Your task to perform on an android device: turn off location history Image 0: 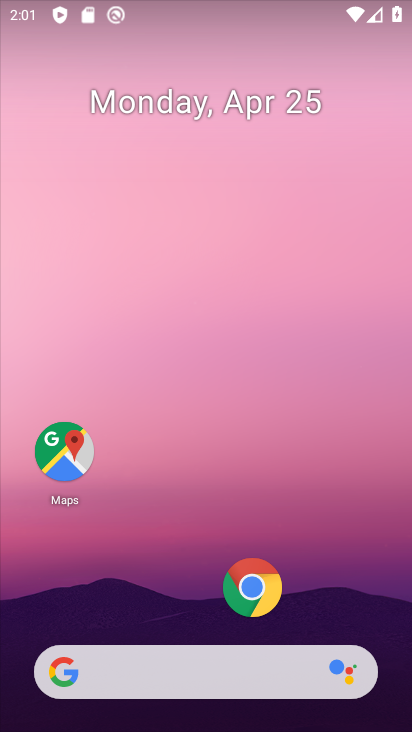
Step 0: click (239, 92)
Your task to perform on an android device: turn off location history Image 1: 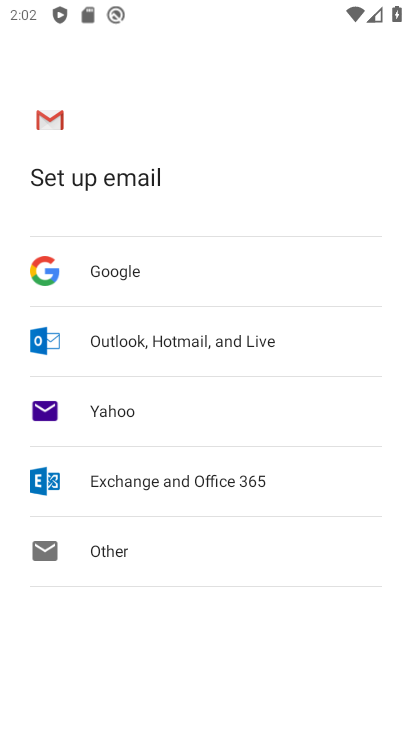
Step 1: press home button
Your task to perform on an android device: turn off location history Image 2: 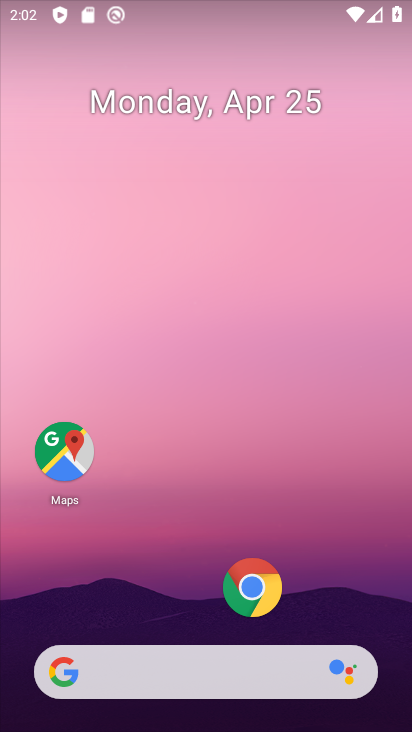
Step 2: drag from (186, 622) to (219, 17)
Your task to perform on an android device: turn off location history Image 3: 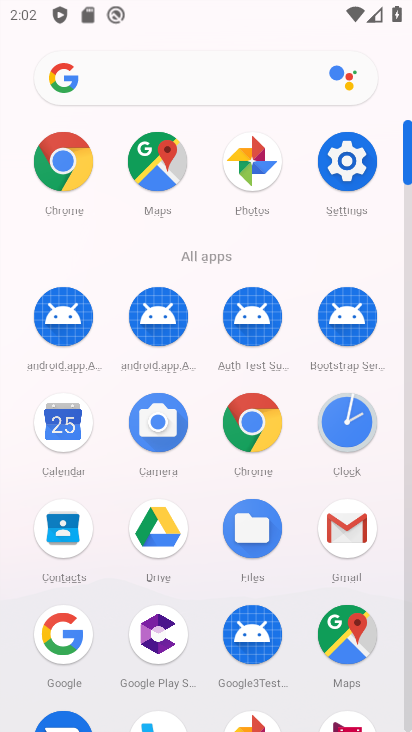
Step 3: click (342, 158)
Your task to perform on an android device: turn off location history Image 4: 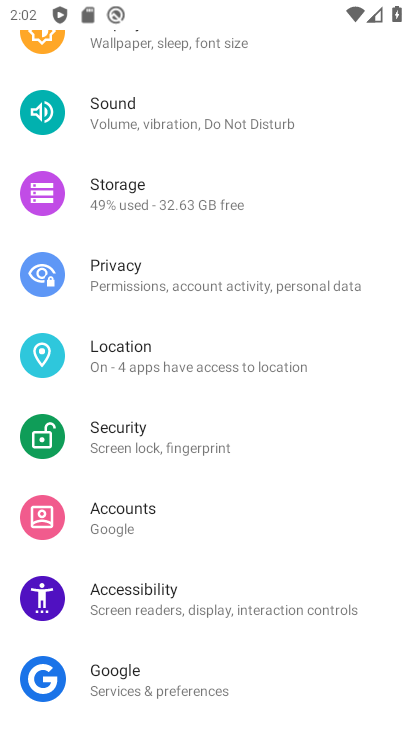
Step 4: click (148, 349)
Your task to perform on an android device: turn off location history Image 5: 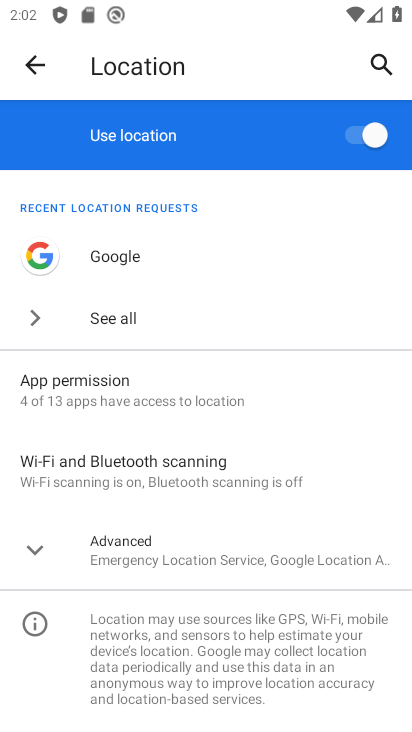
Step 5: click (34, 551)
Your task to perform on an android device: turn off location history Image 6: 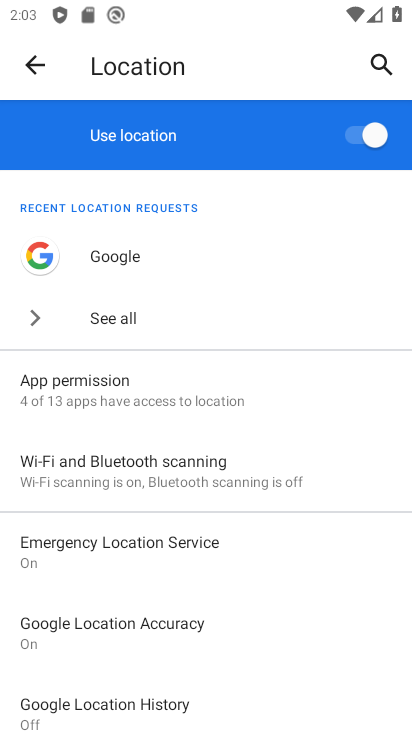
Step 6: click (174, 697)
Your task to perform on an android device: turn off location history Image 7: 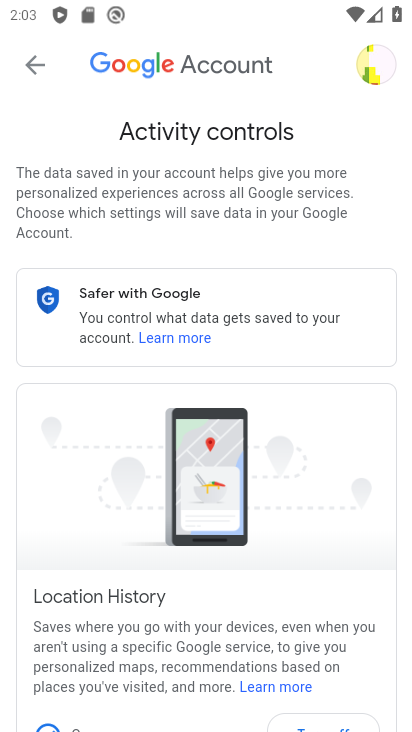
Step 7: drag from (205, 616) to (233, 96)
Your task to perform on an android device: turn off location history Image 8: 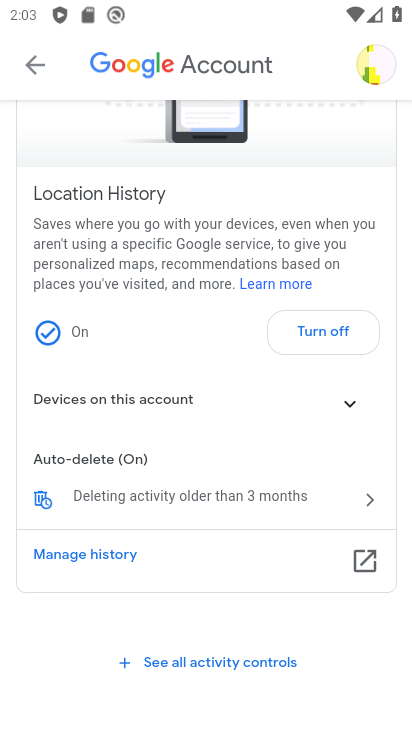
Step 8: click (327, 327)
Your task to perform on an android device: turn off location history Image 9: 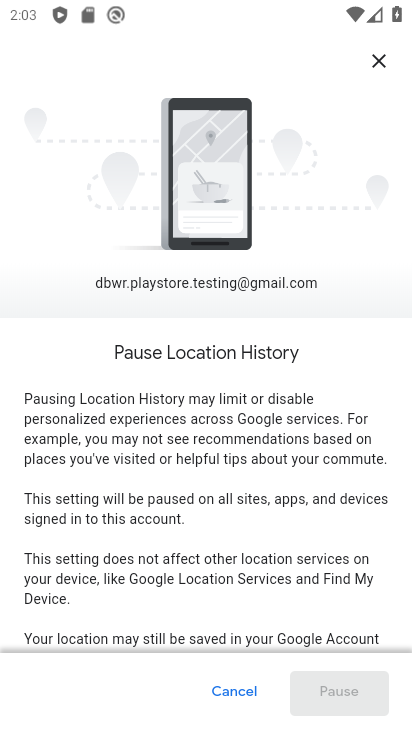
Step 9: drag from (281, 611) to (272, 73)
Your task to perform on an android device: turn off location history Image 10: 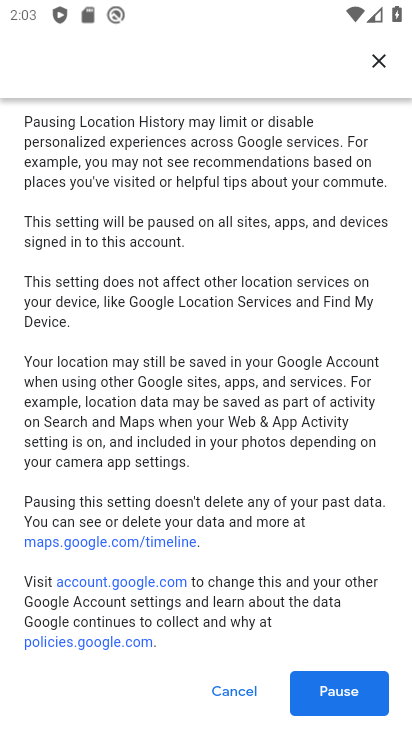
Step 10: click (319, 676)
Your task to perform on an android device: turn off location history Image 11: 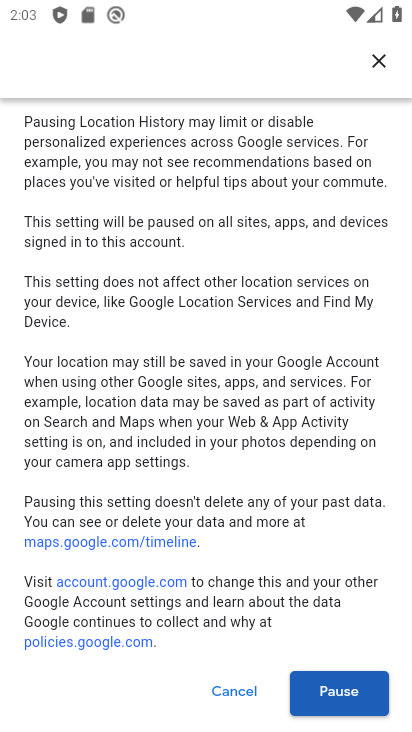
Step 11: click (340, 700)
Your task to perform on an android device: turn off location history Image 12: 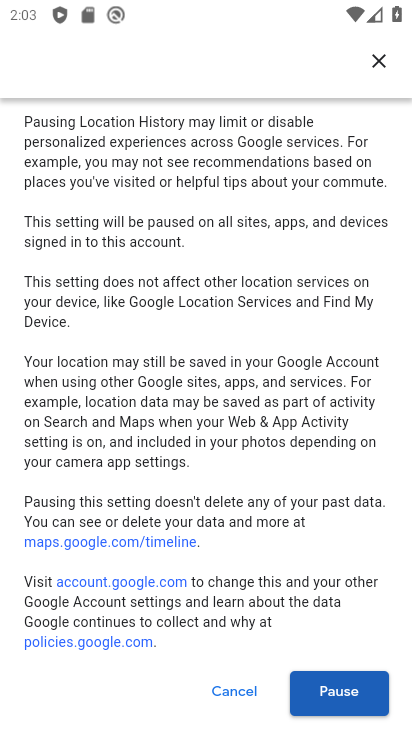
Step 12: click (342, 685)
Your task to perform on an android device: turn off location history Image 13: 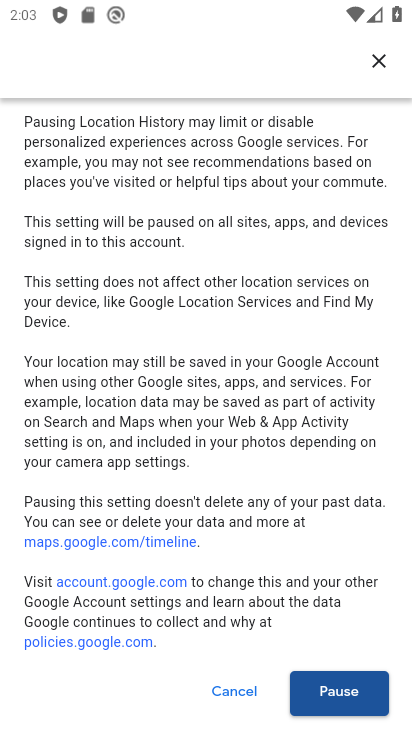
Step 13: drag from (306, 595) to (302, 116)
Your task to perform on an android device: turn off location history Image 14: 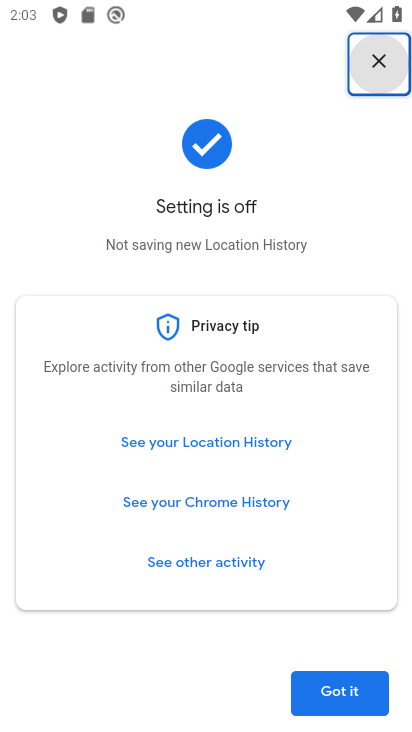
Step 14: click (334, 682)
Your task to perform on an android device: turn off location history Image 15: 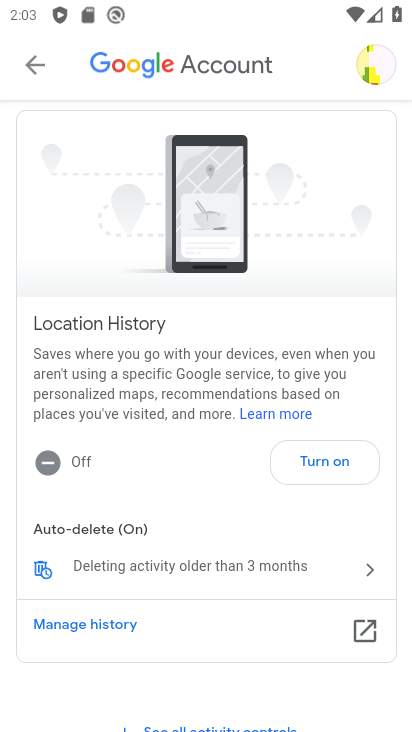
Step 15: task complete